Your task to perform on an android device: Open wifi settings Image 0: 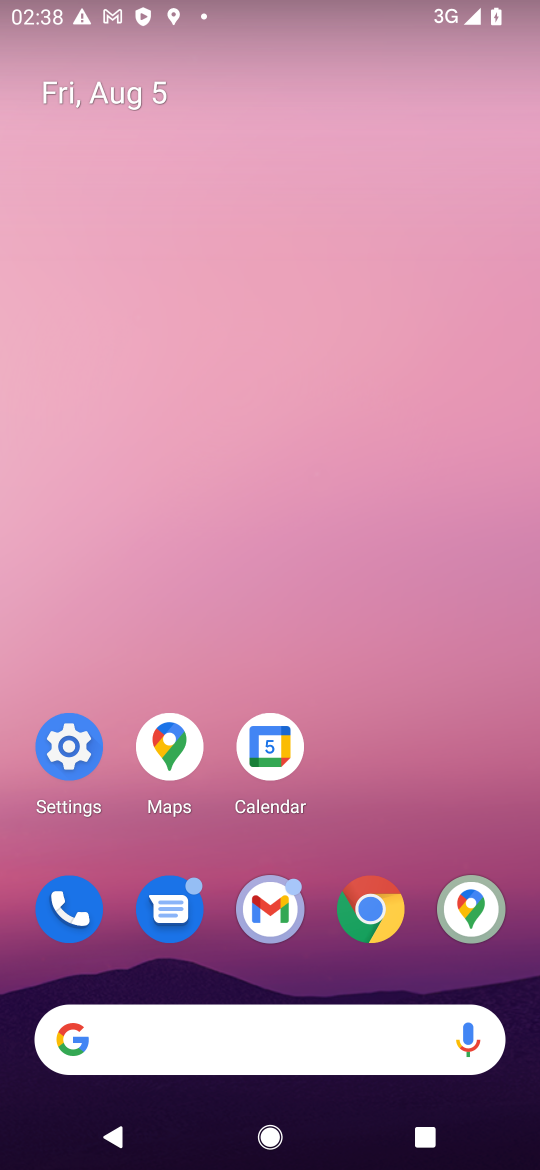
Step 0: click (70, 740)
Your task to perform on an android device: Open wifi settings Image 1: 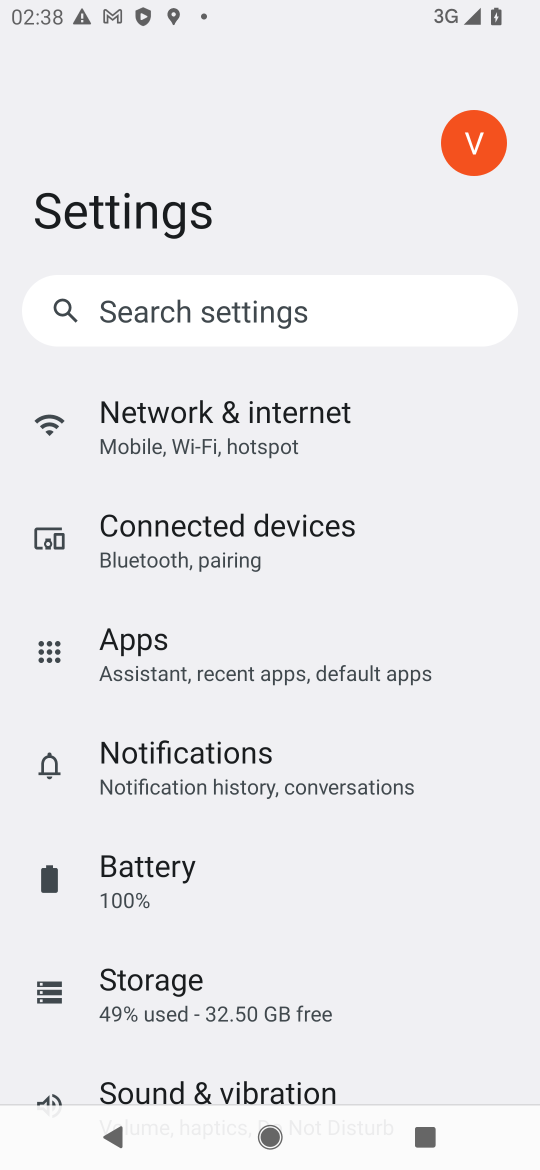
Step 1: click (214, 417)
Your task to perform on an android device: Open wifi settings Image 2: 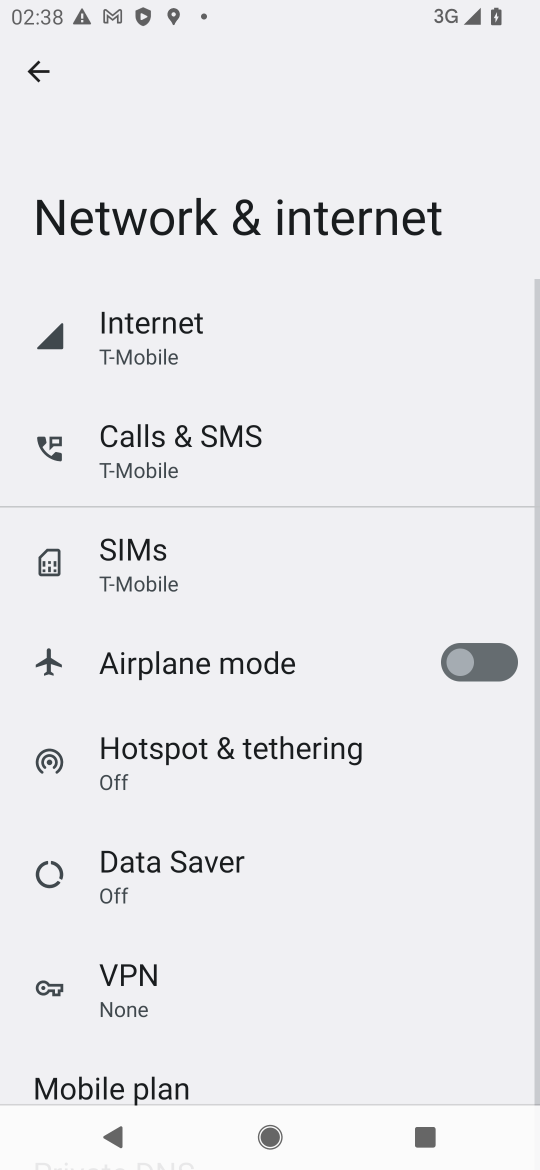
Step 2: click (150, 328)
Your task to perform on an android device: Open wifi settings Image 3: 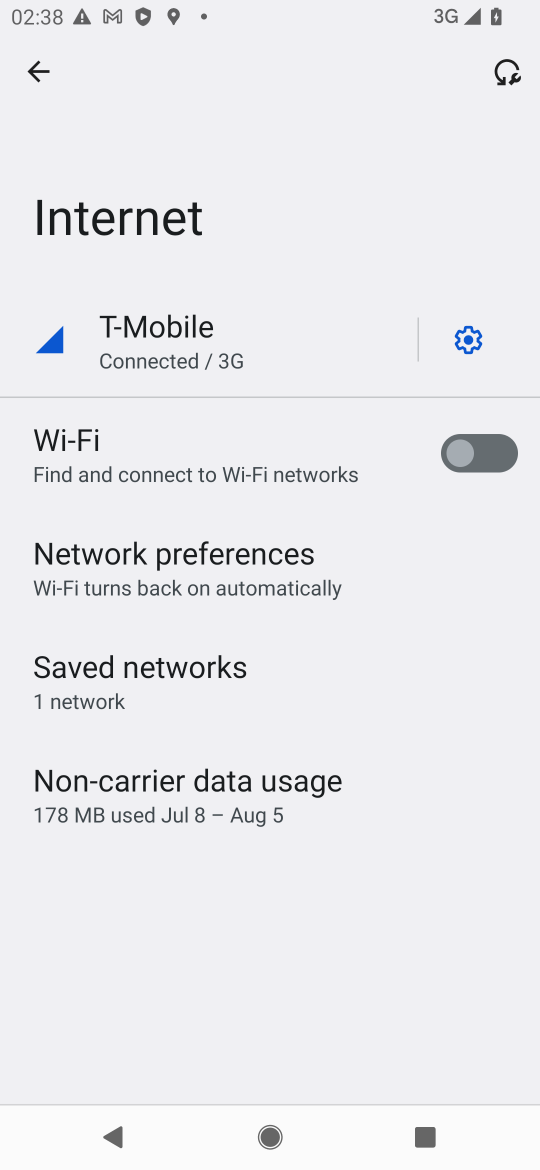
Step 3: task complete